Your task to perform on an android device: Open Google Maps Image 0: 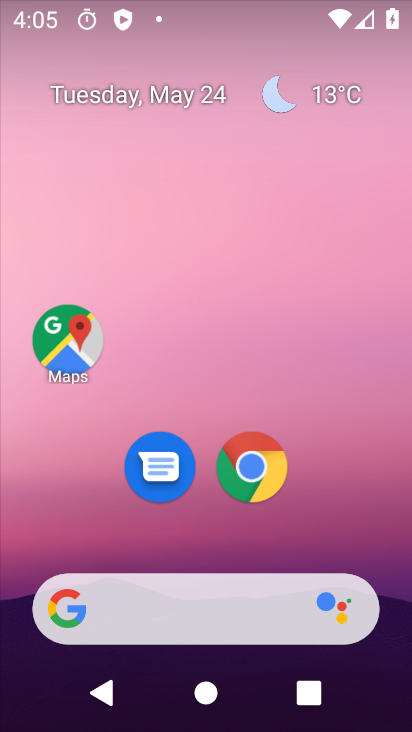
Step 0: click (77, 348)
Your task to perform on an android device: Open Google Maps Image 1: 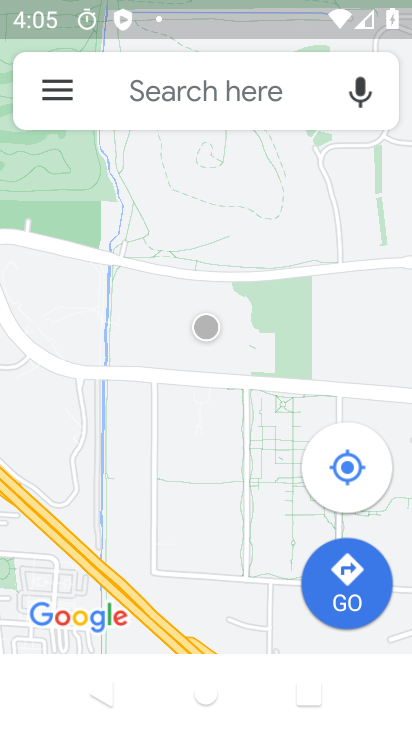
Step 1: task complete